Your task to perform on an android device: open chrome and create a bookmark for the current page Image 0: 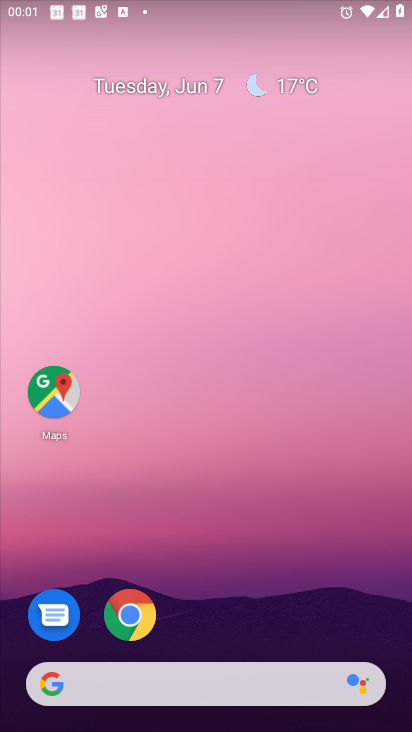
Step 0: click (125, 612)
Your task to perform on an android device: open chrome and create a bookmark for the current page Image 1: 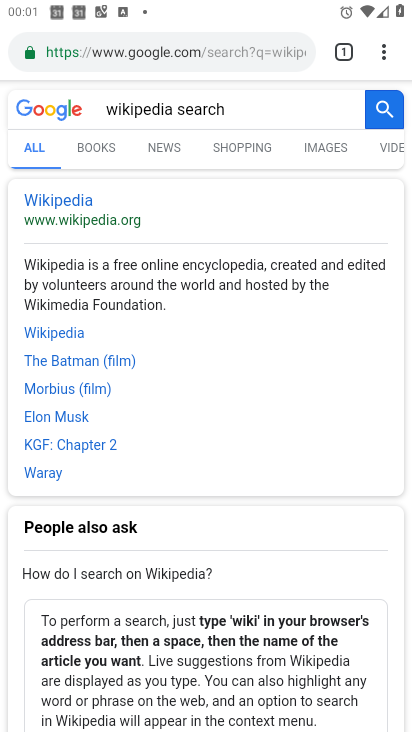
Step 1: click (378, 52)
Your task to perform on an android device: open chrome and create a bookmark for the current page Image 2: 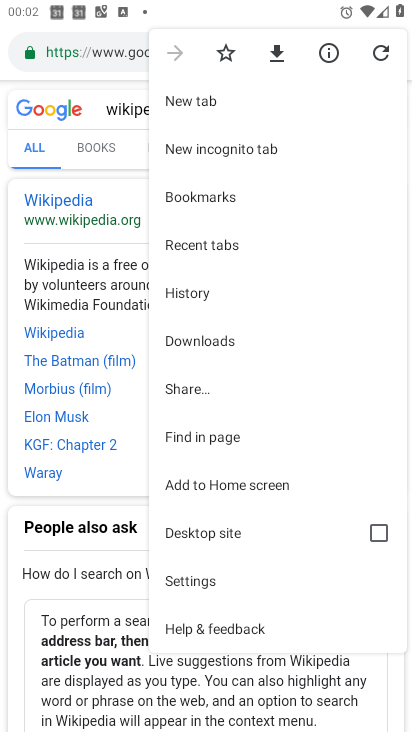
Step 2: click (229, 44)
Your task to perform on an android device: open chrome and create a bookmark for the current page Image 3: 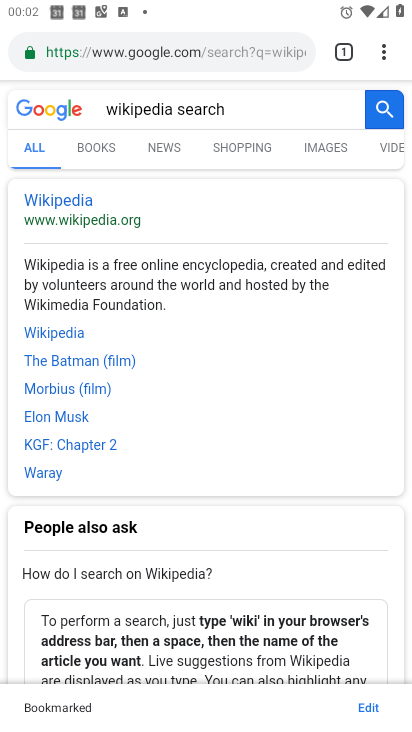
Step 3: task complete